Your task to perform on an android device: turn off notifications in google photos Image 0: 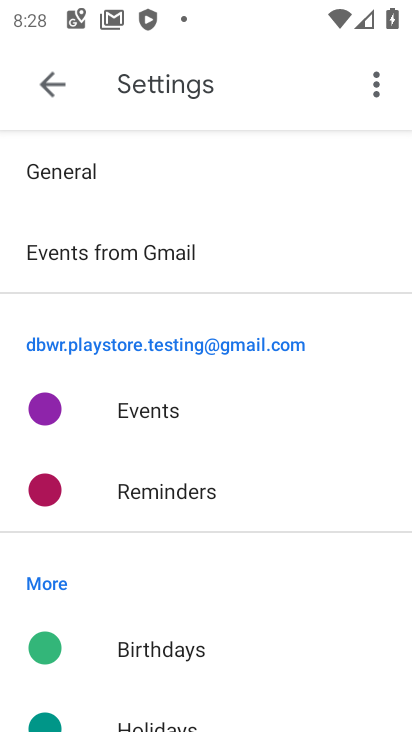
Step 0: press home button
Your task to perform on an android device: turn off notifications in google photos Image 1: 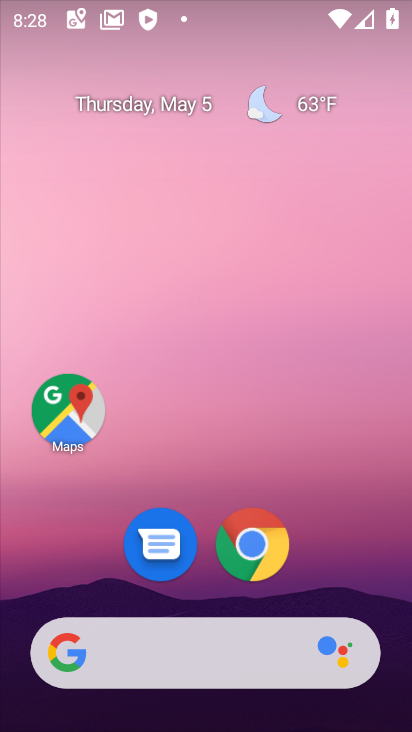
Step 1: drag from (400, 646) to (244, 112)
Your task to perform on an android device: turn off notifications in google photos Image 2: 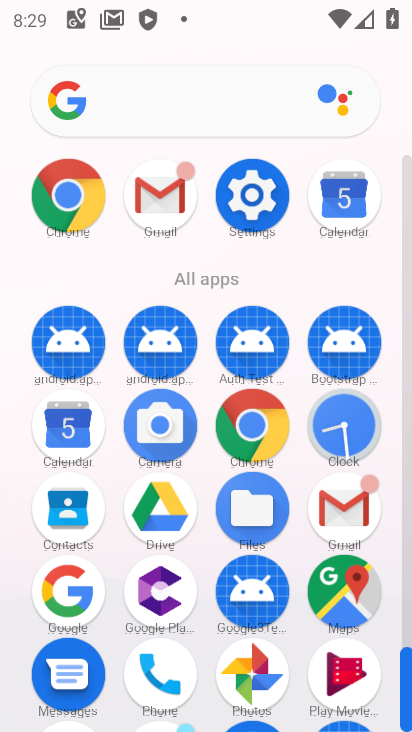
Step 2: click (259, 676)
Your task to perform on an android device: turn off notifications in google photos Image 3: 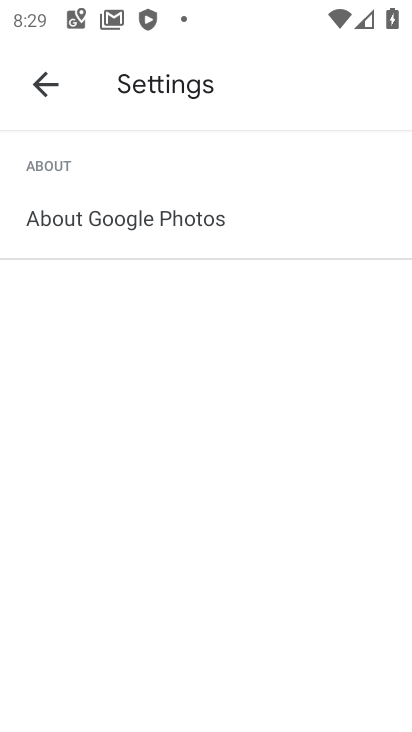
Step 3: click (41, 107)
Your task to perform on an android device: turn off notifications in google photos Image 4: 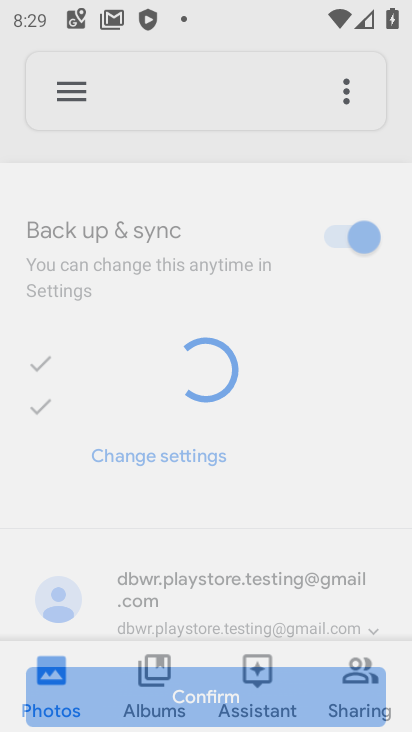
Step 4: click (58, 85)
Your task to perform on an android device: turn off notifications in google photos Image 5: 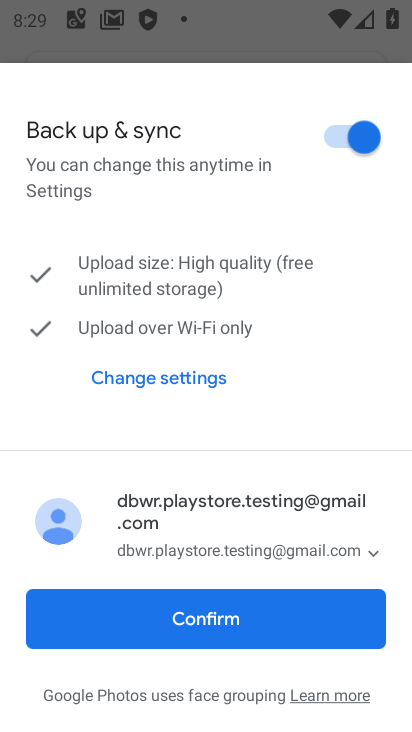
Step 5: click (188, 619)
Your task to perform on an android device: turn off notifications in google photos Image 6: 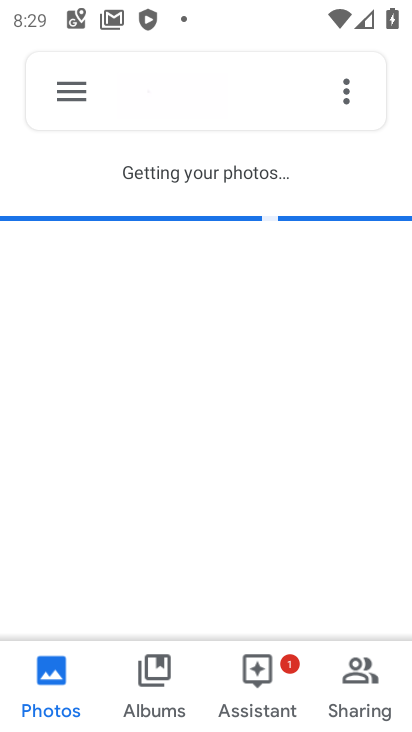
Step 6: click (57, 87)
Your task to perform on an android device: turn off notifications in google photos Image 7: 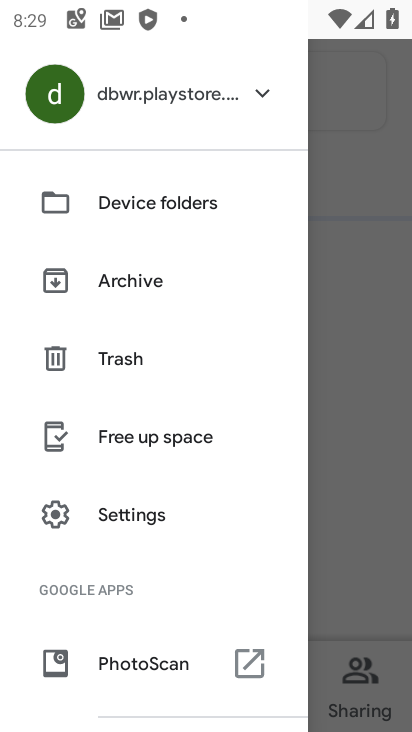
Step 7: click (154, 520)
Your task to perform on an android device: turn off notifications in google photos Image 8: 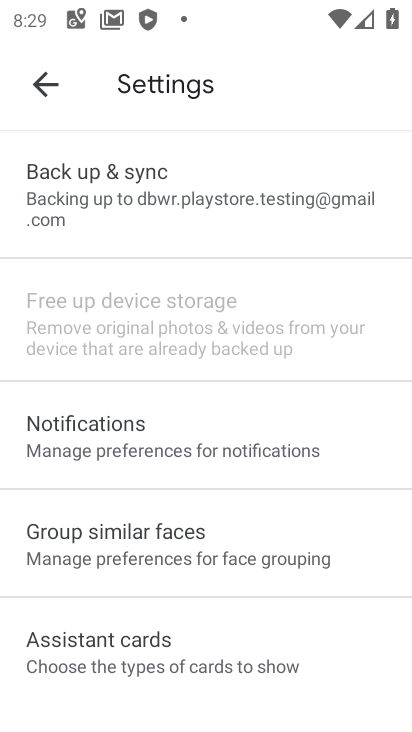
Step 8: click (189, 475)
Your task to perform on an android device: turn off notifications in google photos Image 9: 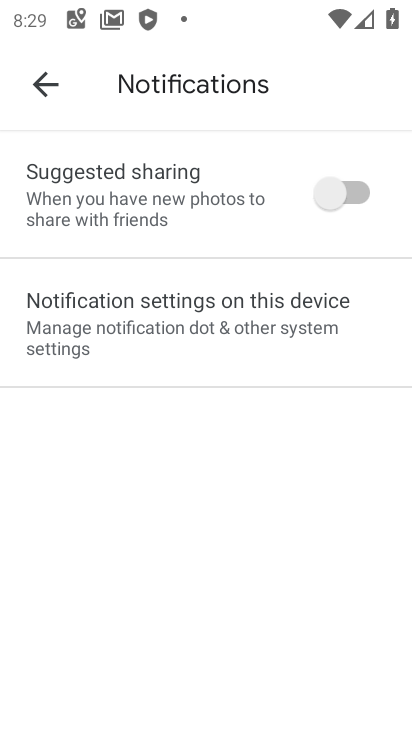
Step 9: task complete